Your task to perform on an android device: Show me the alarms in the clock app Image 0: 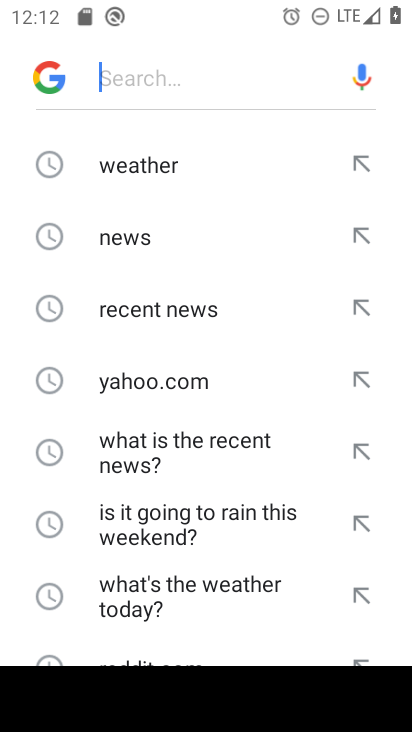
Step 0: press home button
Your task to perform on an android device: Show me the alarms in the clock app Image 1: 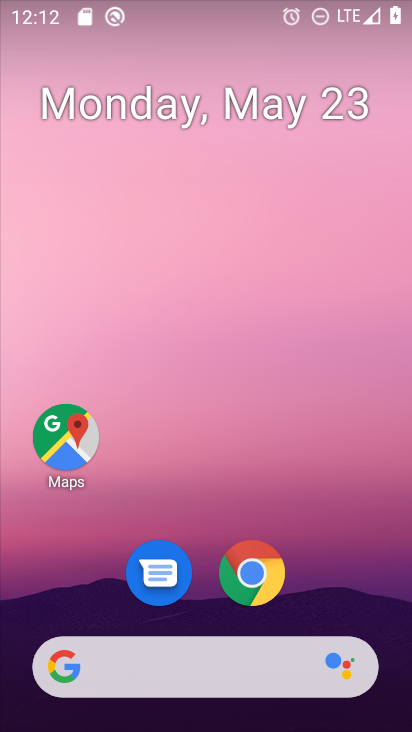
Step 1: drag from (326, 589) to (354, 101)
Your task to perform on an android device: Show me the alarms in the clock app Image 2: 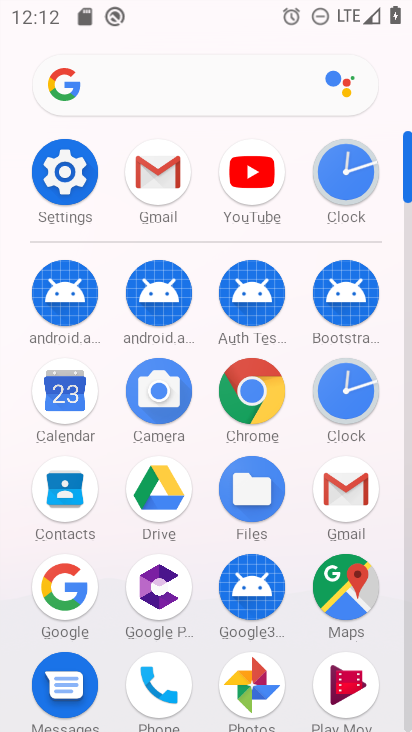
Step 2: click (339, 384)
Your task to perform on an android device: Show me the alarms in the clock app Image 3: 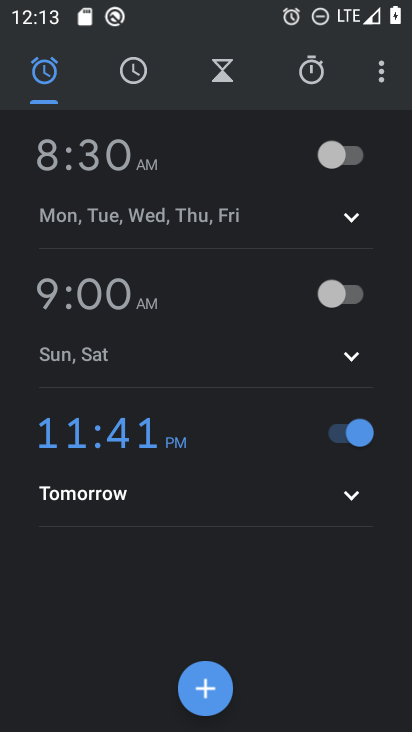
Step 3: task complete